Your task to perform on an android device: Open Amazon Image 0: 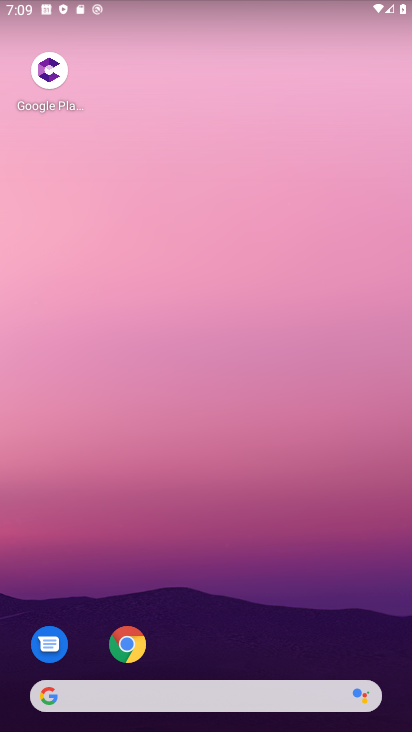
Step 0: drag from (292, 714) to (239, 137)
Your task to perform on an android device: Open Amazon Image 1: 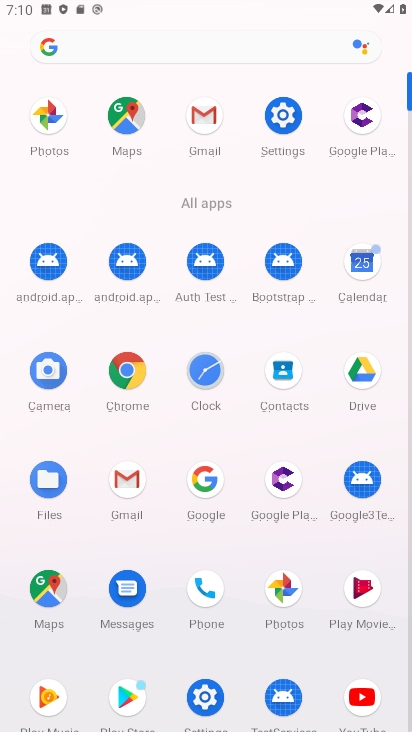
Step 1: click (135, 382)
Your task to perform on an android device: Open Amazon Image 2: 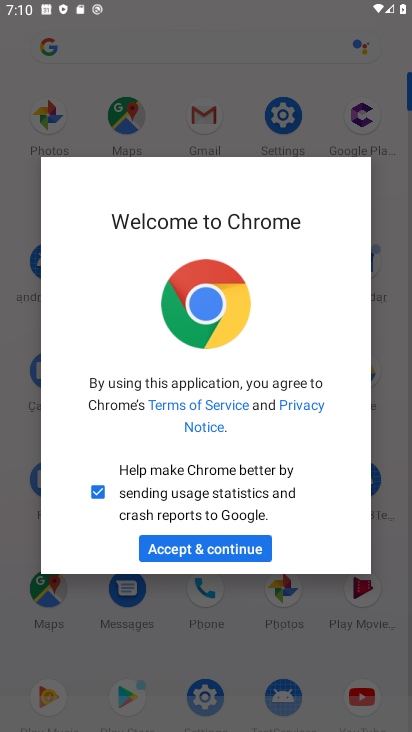
Step 2: click (192, 545)
Your task to perform on an android device: Open Amazon Image 3: 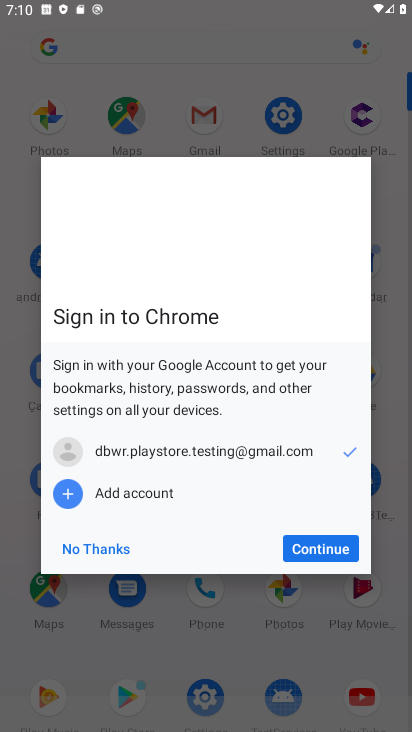
Step 3: click (292, 547)
Your task to perform on an android device: Open Amazon Image 4: 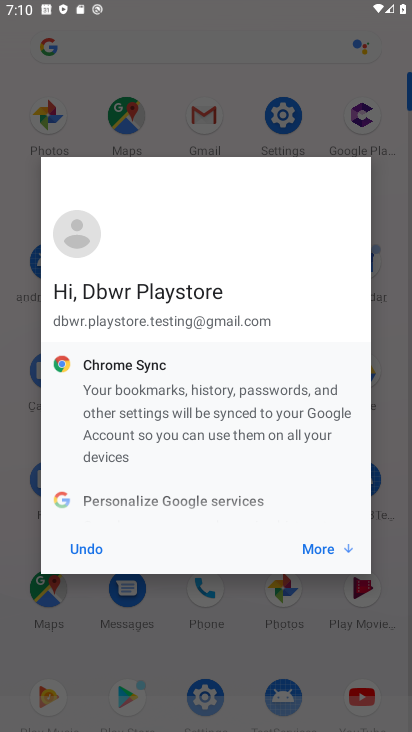
Step 4: click (306, 546)
Your task to perform on an android device: Open Amazon Image 5: 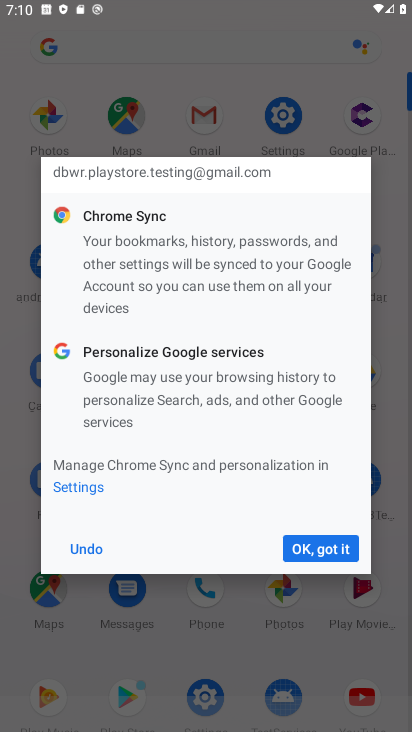
Step 5: click (308, 540)
Your task to perform on an android device: Open Amazon Image 6: 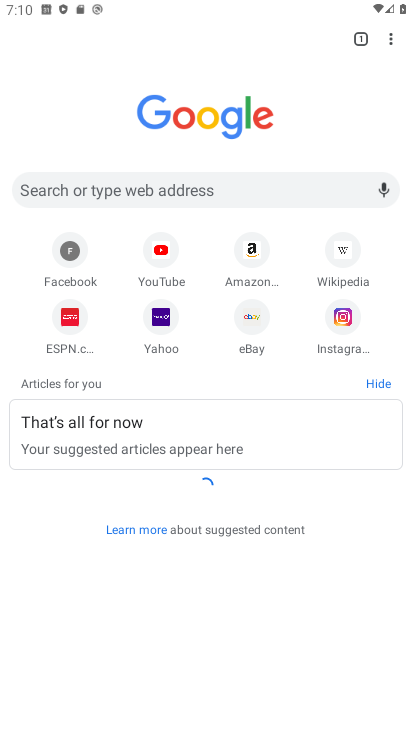
Step 6: click (253, 265)
Your task to perform on an android device: Open Amazon Image 7: 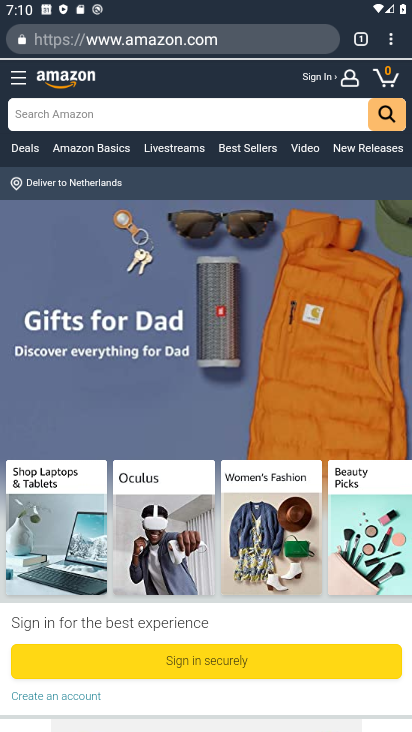
Step 7: task complete